Your task to perform on an android device: What is the news today? Image 0: 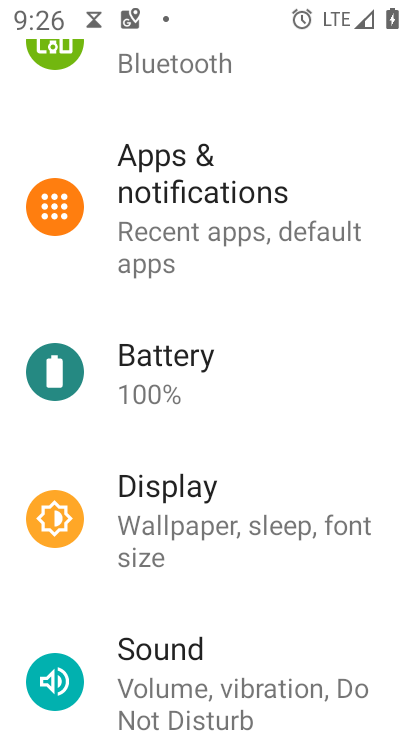
Step 0: press home button
Your task to perform on an android device: What is the news today? Image 1: 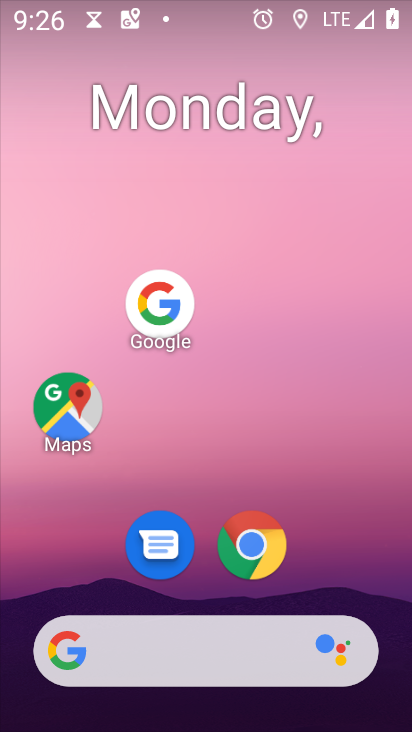
Step 1: click (73, 654)
Your task to perform on an android device: What is the news today? Image 2: 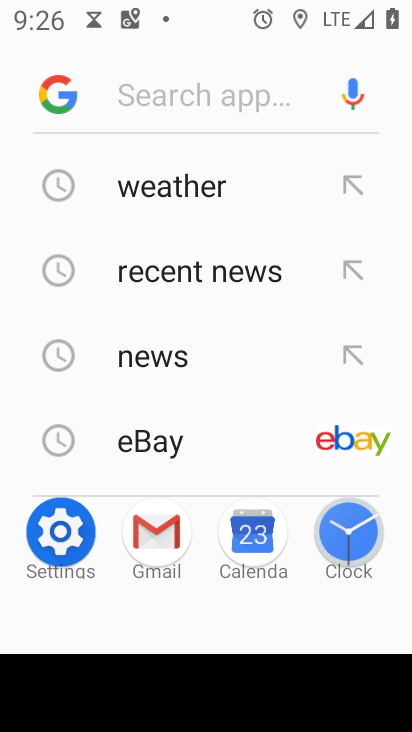
Step 2: click (176, 356)
Your task to perform on an android device: What is the news today? Image 3: 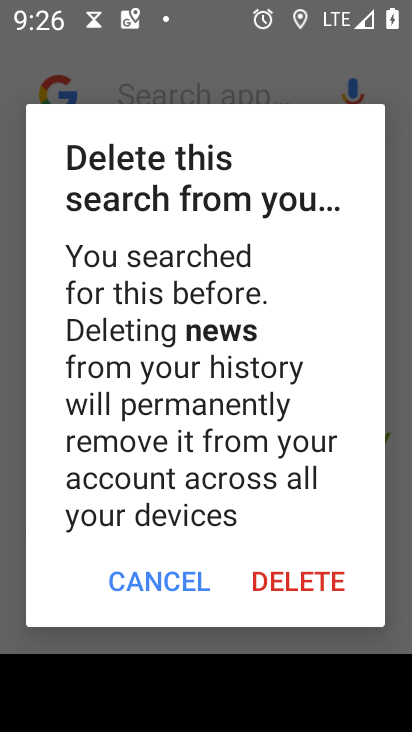
Step 3: click (179, 586)
Your task to perform on an android device: What is the news today? Image 4: 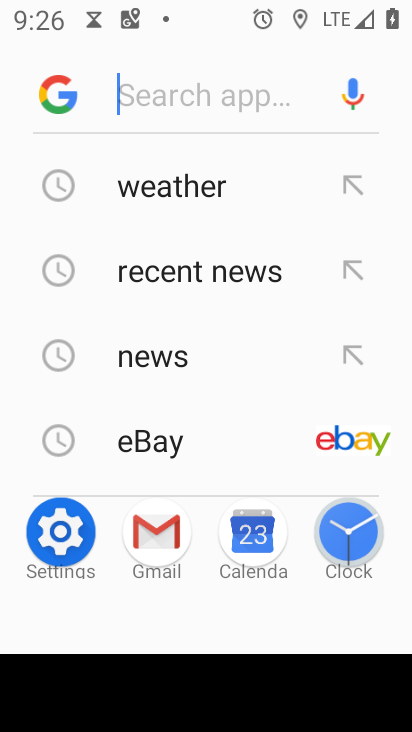
Step 4: click (167, 360)
Your task to perform on an android device: What is the news today? Image 5: 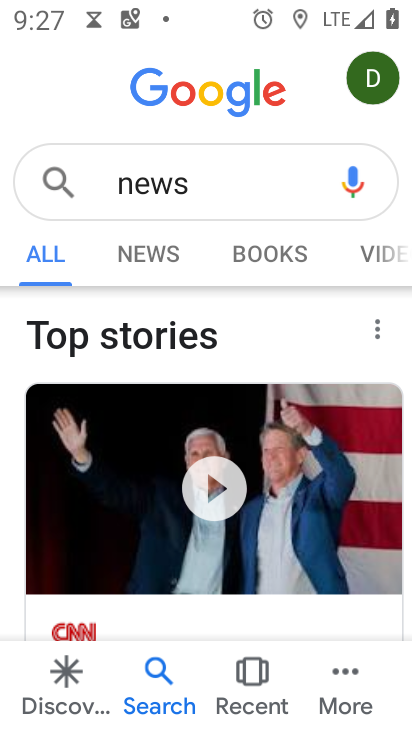
Step 5: click (161, 254)
Your task to perform on an android device: What is the news today? Image 6: 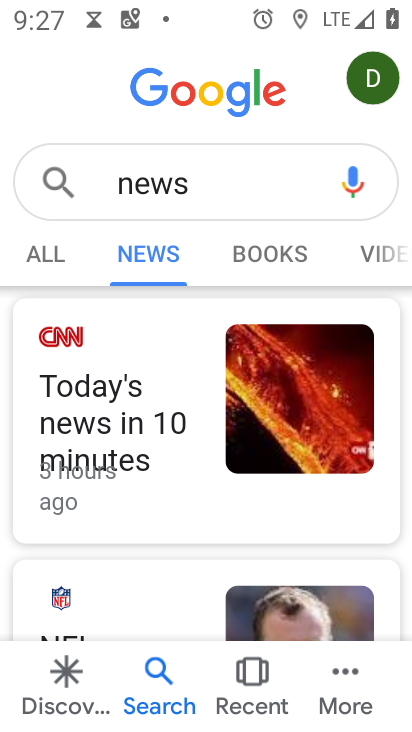
Step 6: task complete